Your task to perform on an android device: check out phone information Image 0: 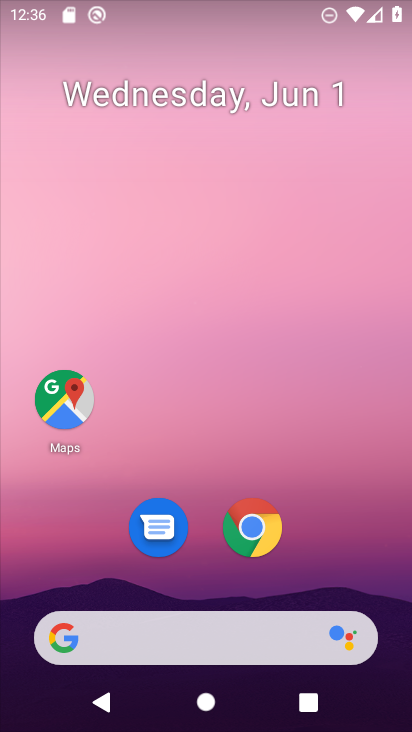
Step 0: drag from (259, 706) to (346, 0)
Your task to perform on an android device: check out phone information Image 1: 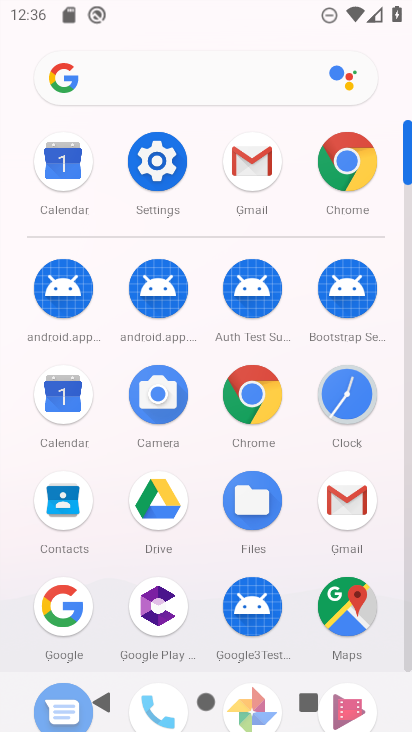
Step 1: click (163, 163)
Your task to perform on an android device: check out phone information Image 2: 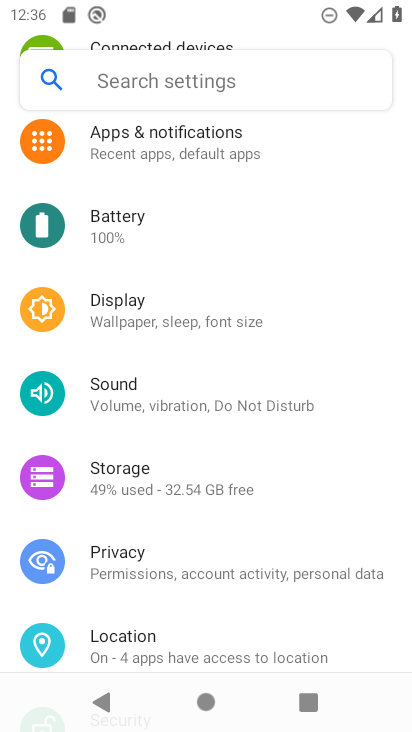
Step 2: drag from (241, 640) to (317, 41)
Your task to perform on an android device: check out phone information Image 3: 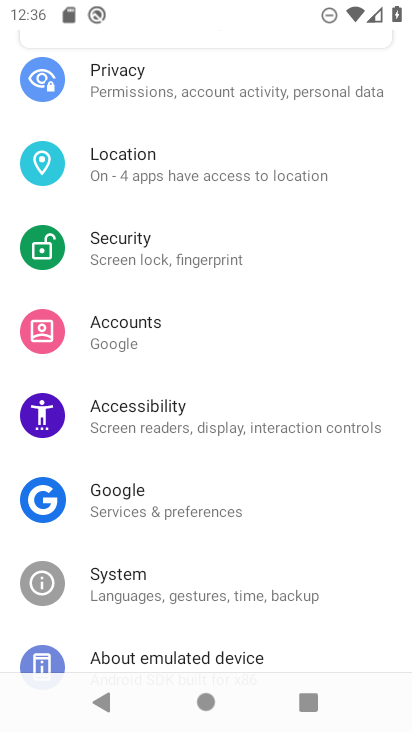
Step 3: drag from (307, 602) to (341, 123)
Your task to perform on an android device: check out phone information Image 4: 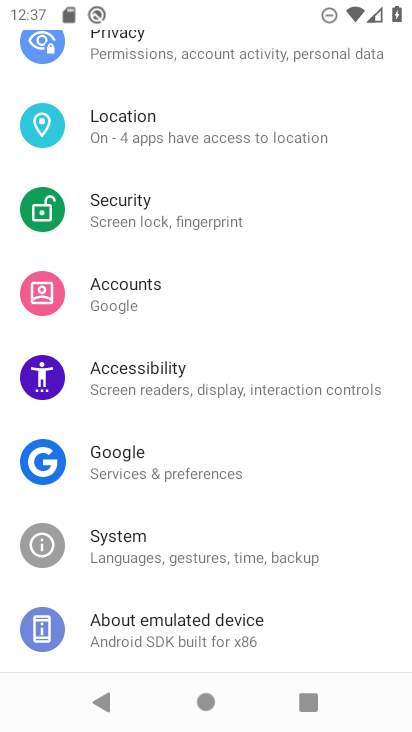
Step 4: click (172, 619)
Your task to perform on an android device: check out phone information Image 5: 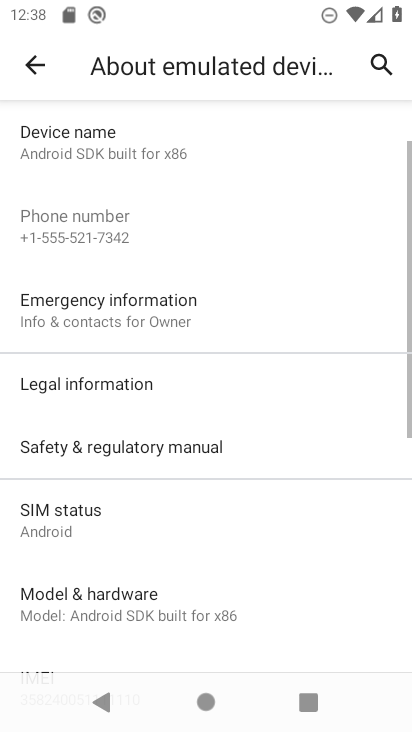
Step 5: task complete